Your task to perform on an android device: Do I have any events this weekend? Image 0: 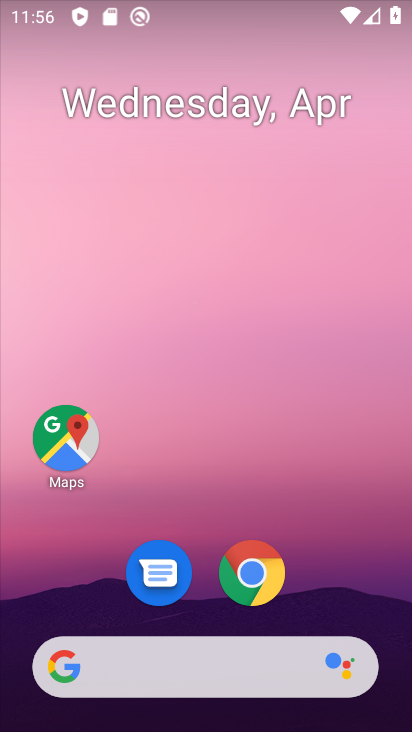
Step 0: drag from (205, 597) to (202, 368)
Your task to perform on an android device: Do I have any events this weekend? Image 1: 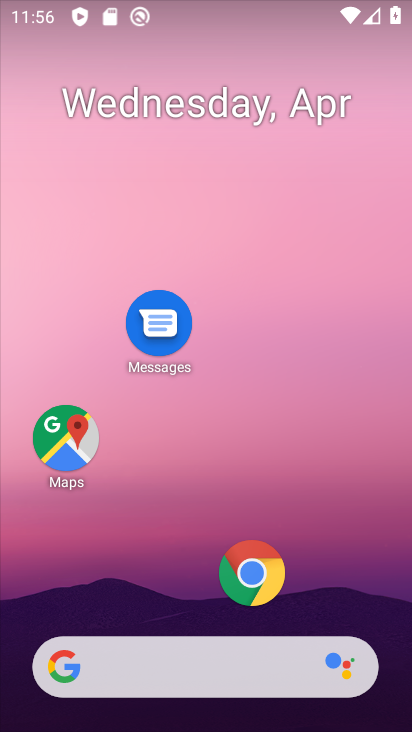
Step 1: drag from (177, 575) to (184, 120)
Your task to perform on an android device: Do I have any events this weekend? Image 2: 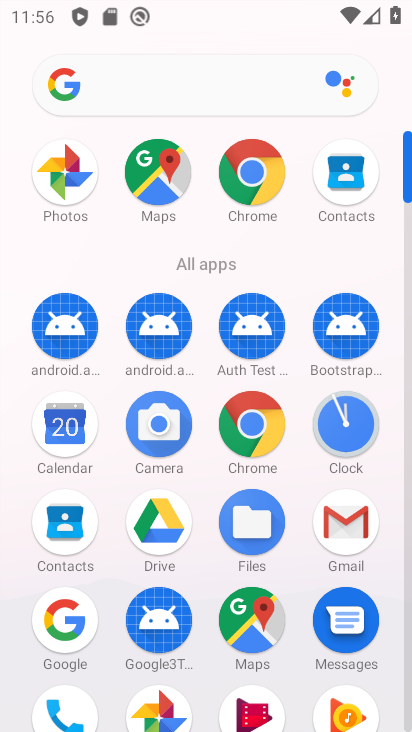
Step 2: click (59, 430)
Your task to perform on an android device: Do I have any events this weekend? Image 3: 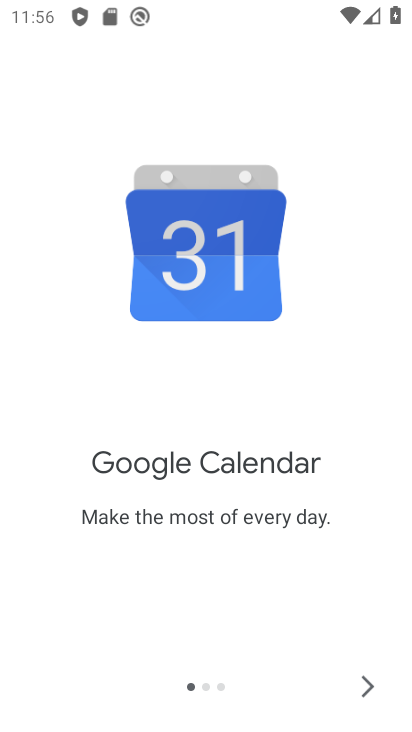
Step 3: click (364, 693)
Your task to perform on an android device: Do I have any events this weekend? Image 4: 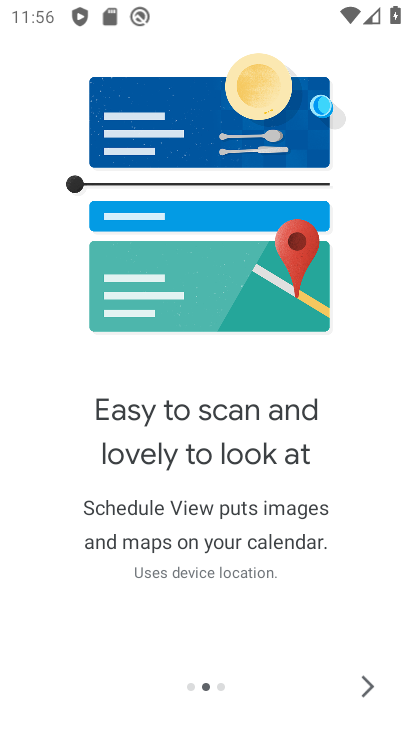
Step 4: click (364, 693)
Your task to perform on an android device: Do I have any events this weekend? Image 5: 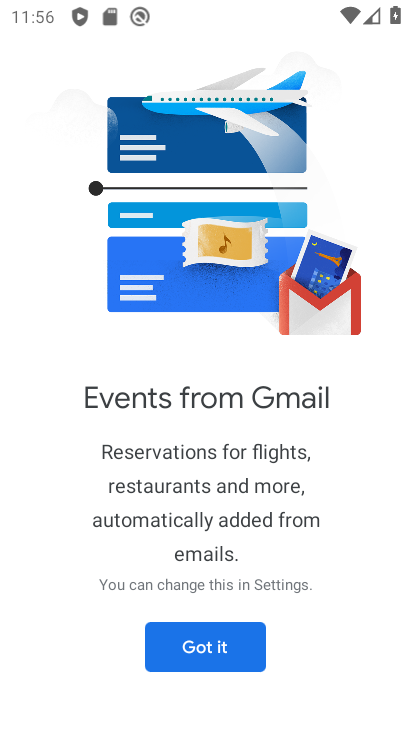
Step 5: click (219, 651)
Your task to perform on an android device: Do I have any events this weekend? Image 6: 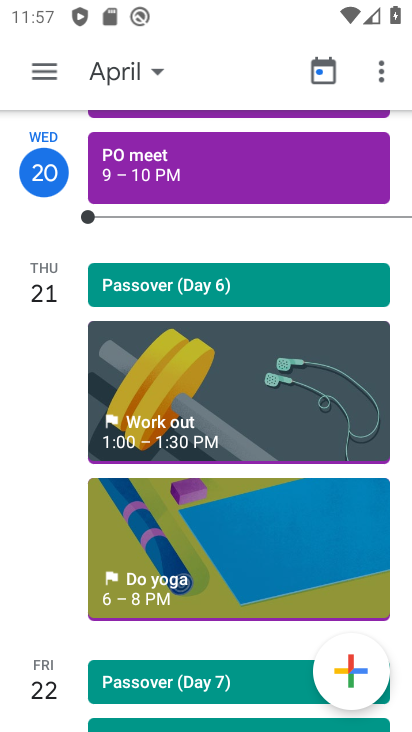
Step 6: click (154, 67)
Your task to perform on an android device: Do I have any events this weekend? Image 7: 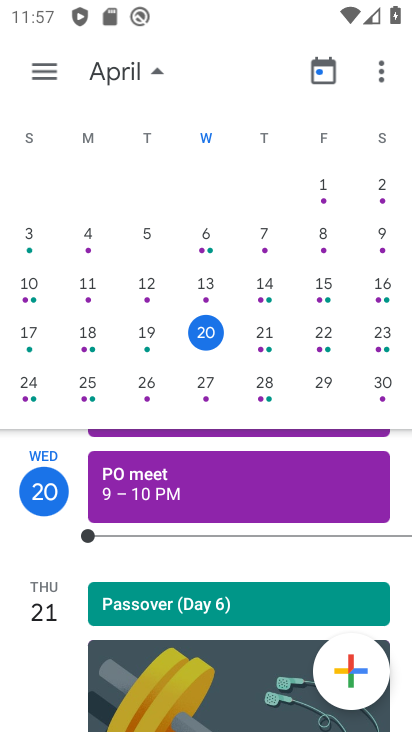
Step 7: click (333, 341)
Your task to perform on an android device: Do I have any events this weekend? Image 8: 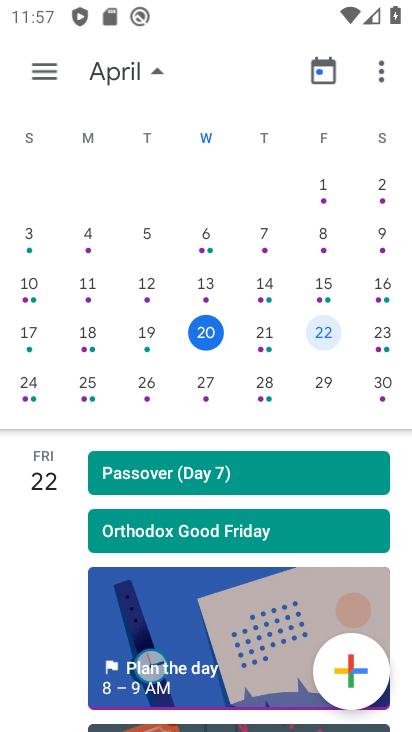
Step 8: task complete